Your task to perform on an android device: open wifi settings Image 0: 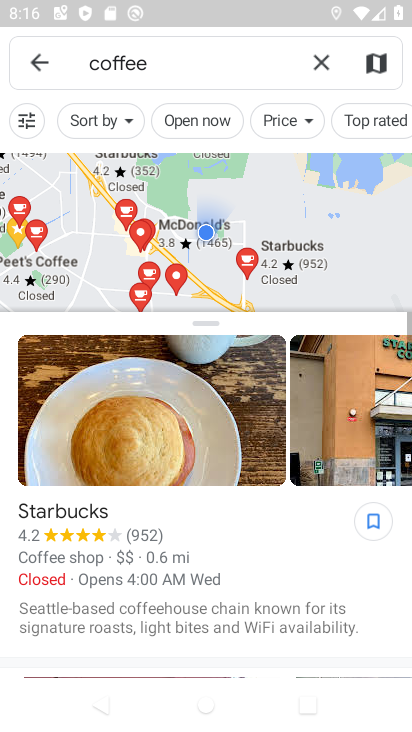
Step 0: press home button
Your task to perform on an android device: open wifi settings Image 1: 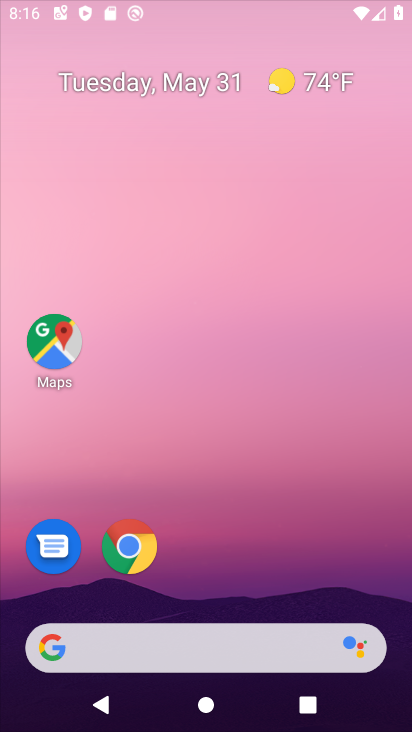
Step 1: drag from (235, 543) to (342, 110)
Your task to perform on an android device: open wifi settings Image 2: 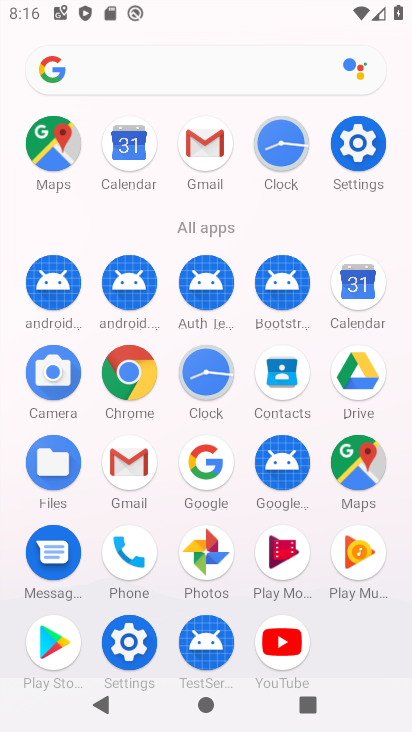
Step 2: click (364, 151)
Your task to perform on an android device: open wifi settings Image 3: 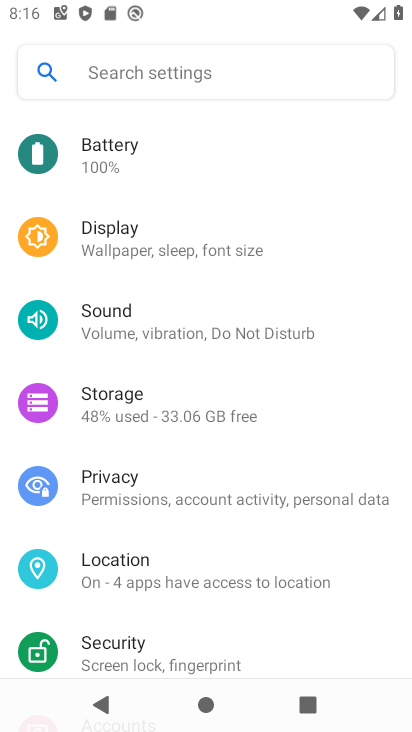
Step 3: drag from (122, 127) to (112, 335)
Your task to perform on an android device: open wifi settings Image 4: 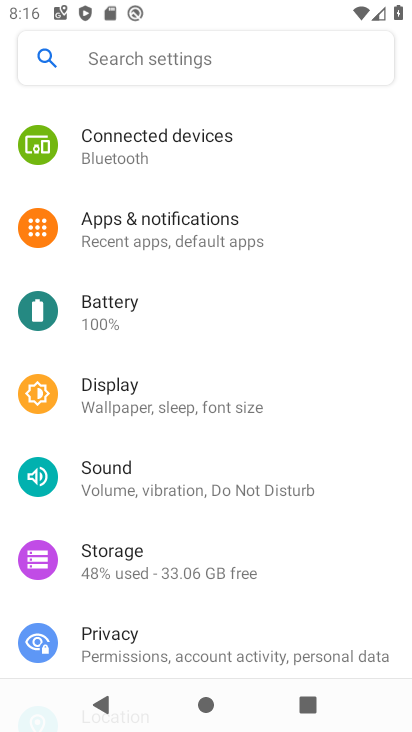
Step 4: drag from (112, 116) to (127, 282)
Your task to perform on an android device: open wifi settings Image 5: 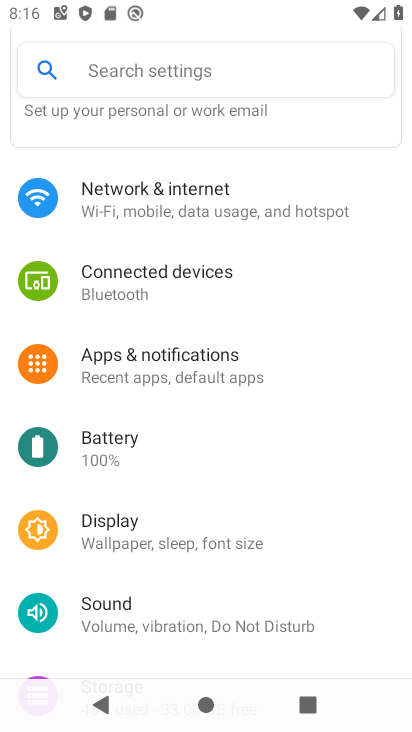
Step 5: click (128, 208)
Your task to perform on an android device: open wifi settings Image 6: 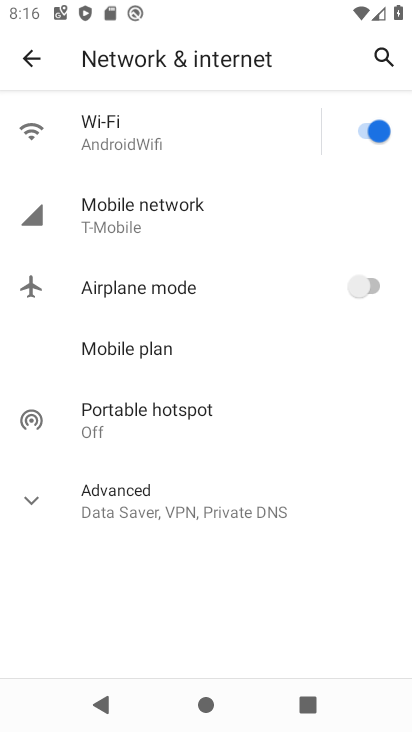
Step 6: click (136, 129)
Your task to perform on an android device: open wifi settings Image 7: 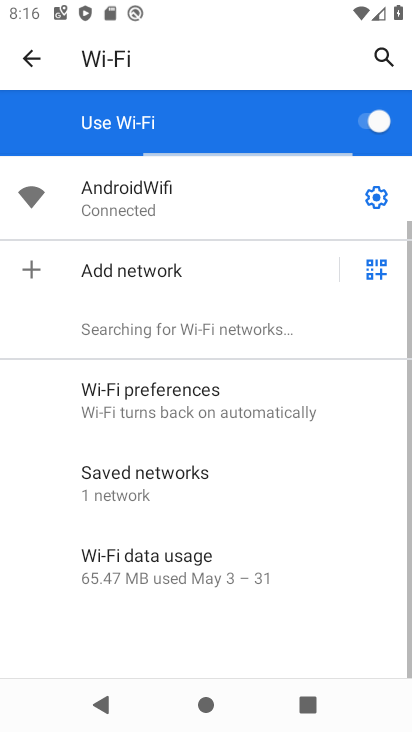
Step 7: click (155, 203)
Your task to perform on an android device: open wifi settings Image 8: 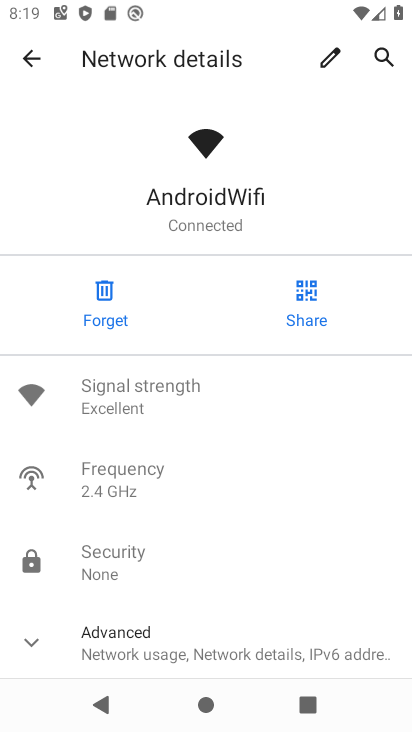
Step 8: task complete